Your task to perform on an android device: change timer sound Image 0: 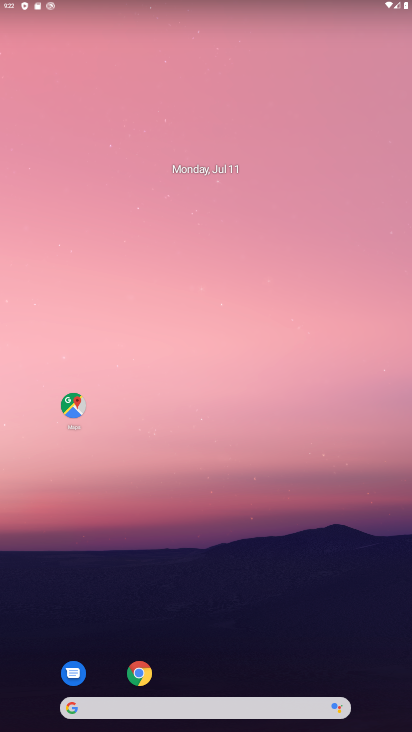
Step 0: drag from (257, 618) to (276, 99)
Your task to perform on an android device: change timer sound Image 1: 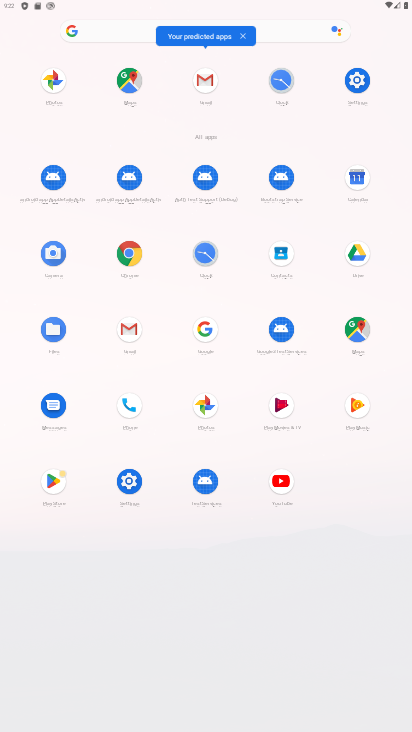
Step 1: click (290, 85)
Your task to perform on an android device: change timer sound Image 2: 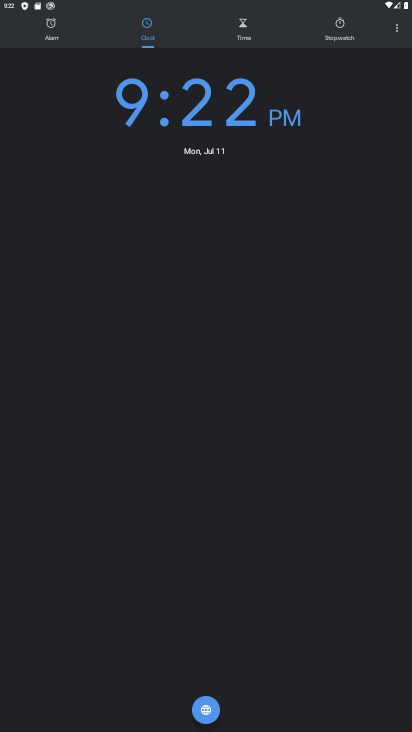
Step 2: click (404, 36)
Your task to perform on an android device: change timer sound Image 3: 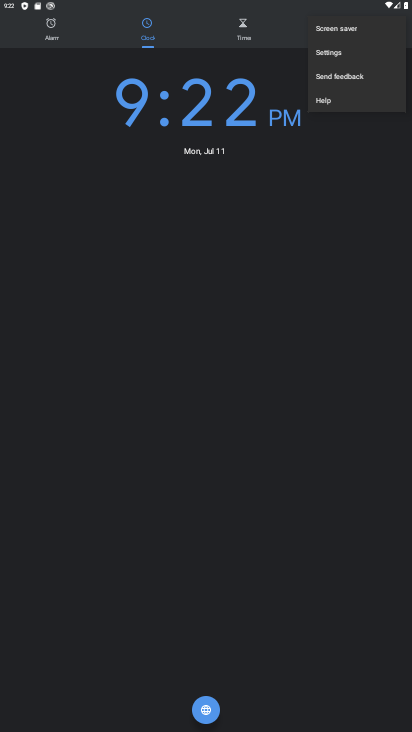
Step 3: click (344, 56)
Your task to perform on an android device: change timer sound Image 4: 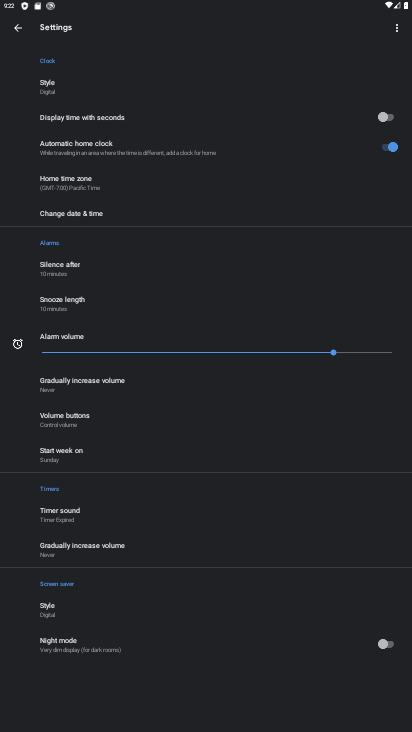
Step 4: click (86, 515)
Your task to perform on an android device: change timer sound Image 5: 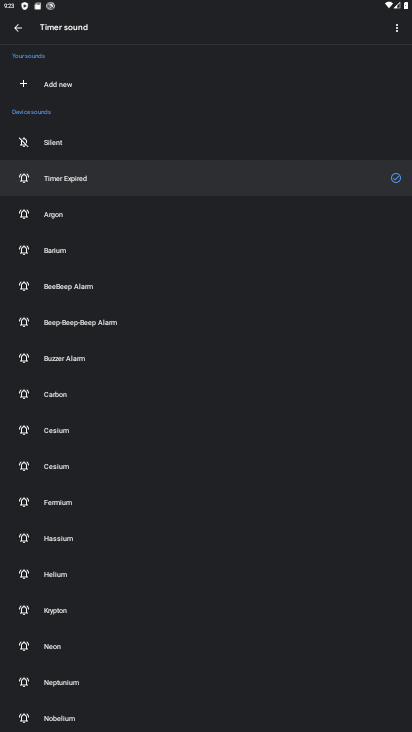
Step 5: click (70, 224)
Your task to perform on an android device: change timer sound Image 6: 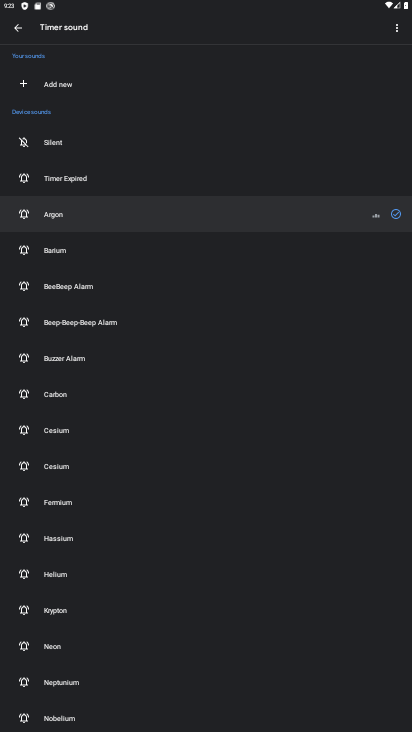
Step 6: task complete